Your task to perform on an android device: Play the last video I watched on Youtube Image 0: 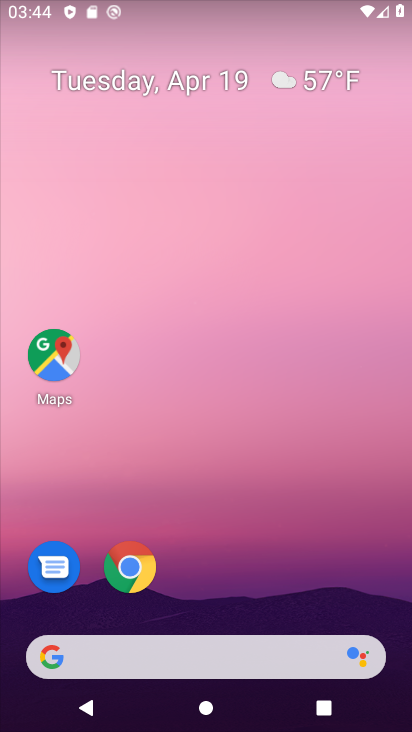
Step 0: drag from (342, 603) to (349, 191)
Your task to perform on an android device: Play the last video I watched on Youtube Image 1: 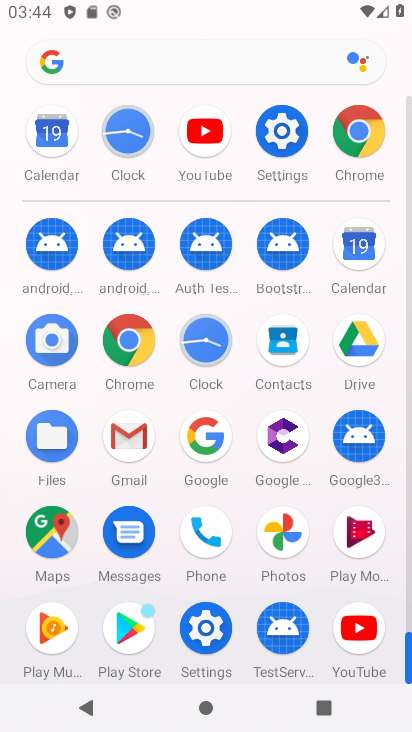
Step 1: click (362, 634)
Your task to perform on an android device: Play the last video I watched on Youtube Image 2: 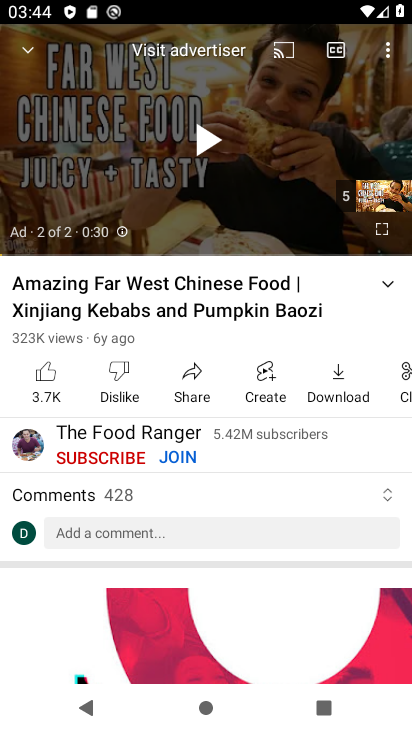
Step 2: click (214, 136)
Your task to perform on an android device: Play the last video I watched on Youtube Image 3: 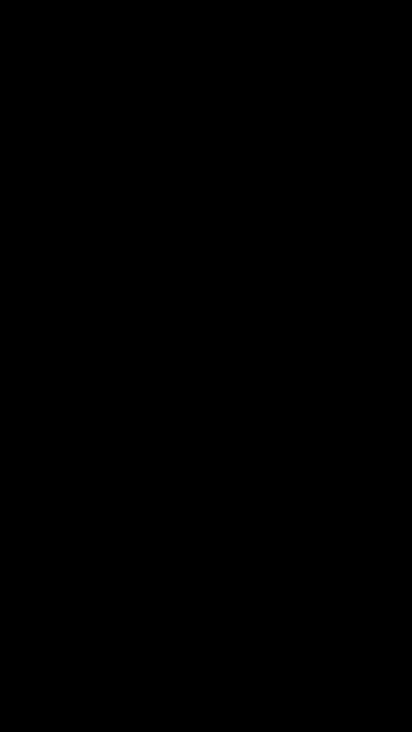
Step 3: task complete